Your task to perform on an android device: clear history in the chrome app Image 0: 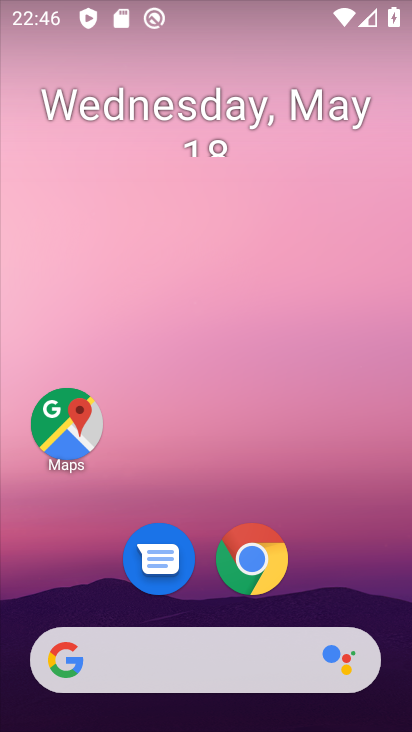
Step 0: click (248, 555)
Your task to perform on an android device: clear history in the chrome app Image 1: 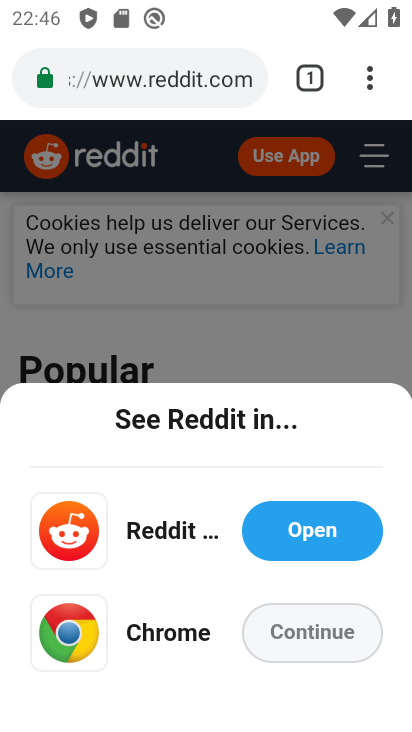
Step 1: click (370, 84)
Your task to perform on an android device: clear history in the chrome app Image 2: 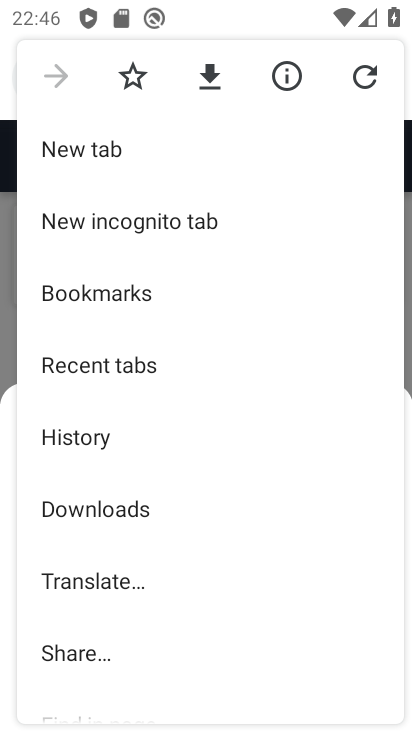
Step 2: click (123, 426)
Your task to perform on an android device: clear history in the chrome app Image 3: 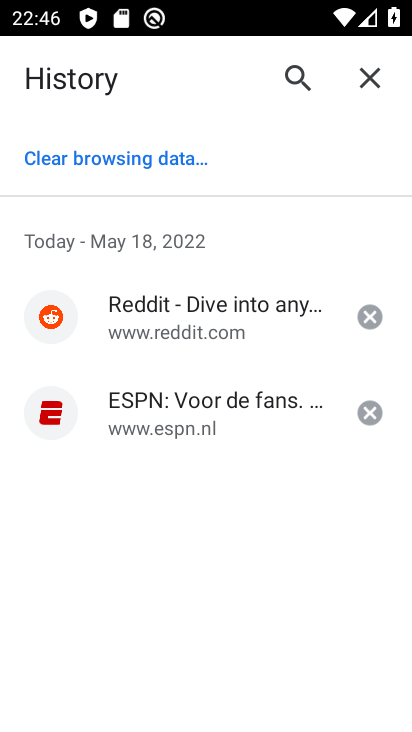
Step 3: click (133, 167)
Your task to perform on an android device: clear history in the chrome app Image 4: 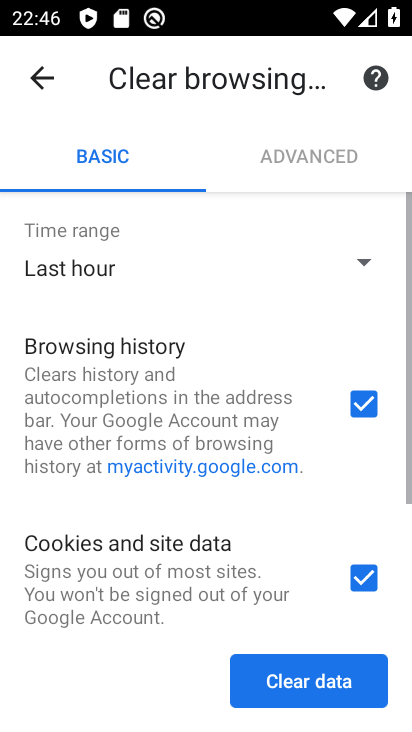
Step 4: click (267, 681)
Your task to perform on an android device: clear history in the chrome app Image 5: 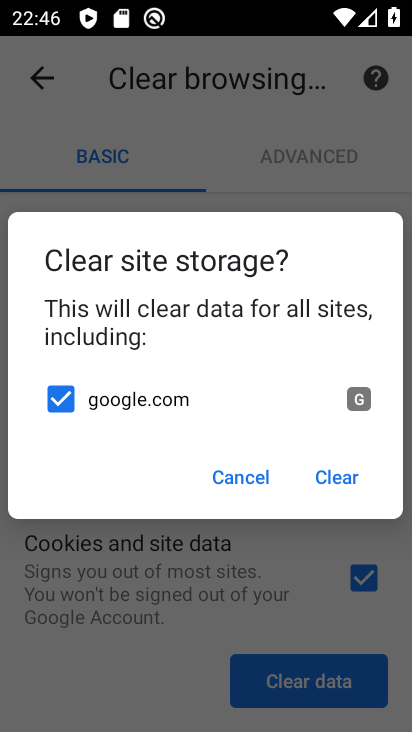
Step 5: click (354, 481)
Your task to perform on an android device: clear history in the chrome app Image 6: 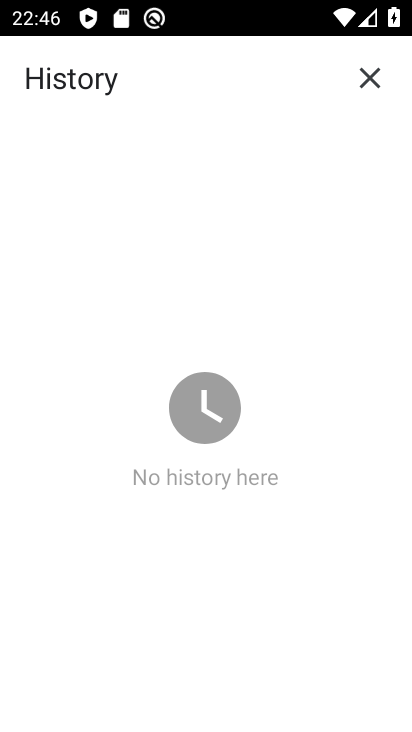
Step 6: task complete